Your task to perform on an android device: toggle location history Image 0: 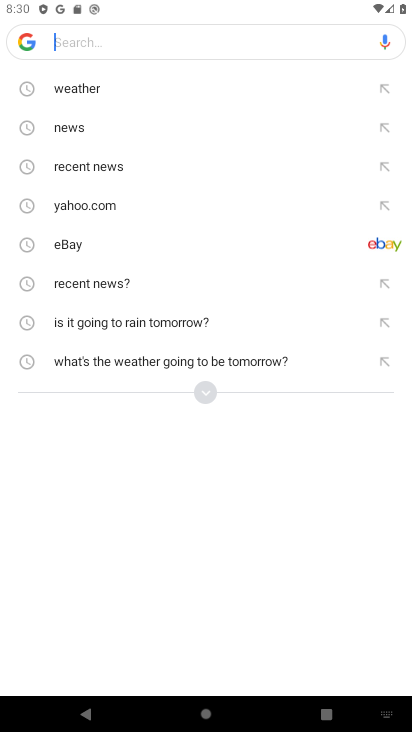
Step 0: press home button
Your task to perform on an android device: toggle location history Image 1: 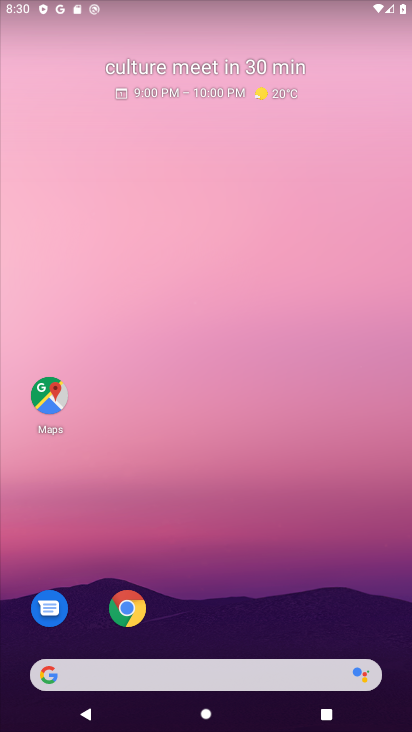
Step 1: drag from (290, 600) to (248, 299)
Your task to perform on an android device: toggle location history Image 2: 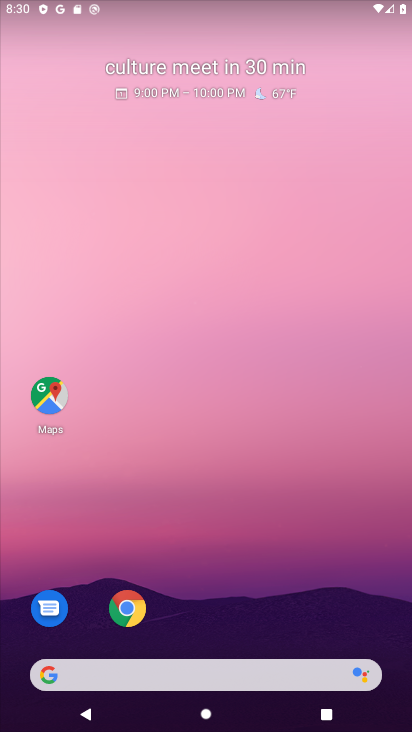
Step 2: drag from (257, 617) to (271, 55)
Your task to perform on an android device: toggle location history Image 3: 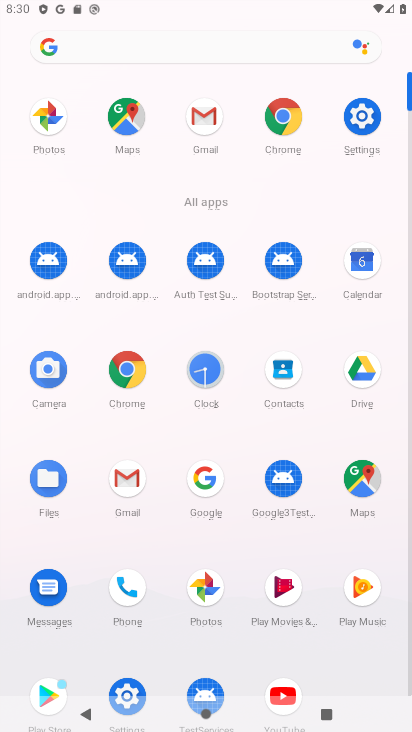
Step 3: click (363, 147)
Your task to perform on an android device: toggle location history Image 4: 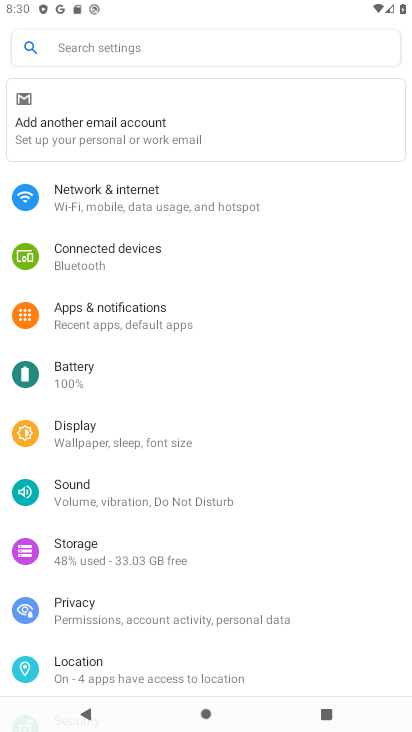
Step 4: click (168, 644)
Your task to perform on an android device: toggle location history Image 5: 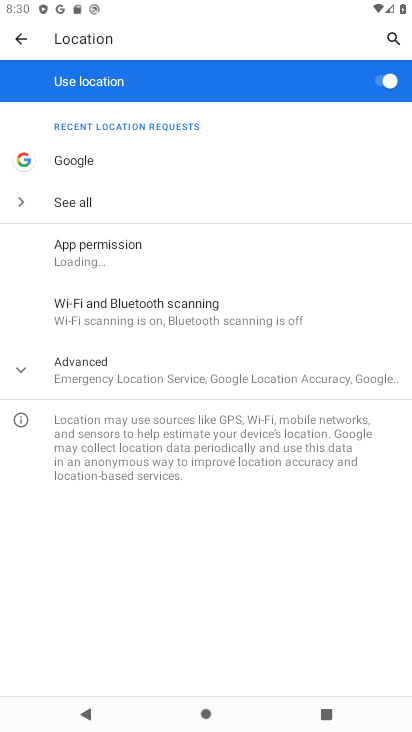
Step 5: task complete